Your task to perform on an android device: turn off priority inbox in the gmail app Image 0: 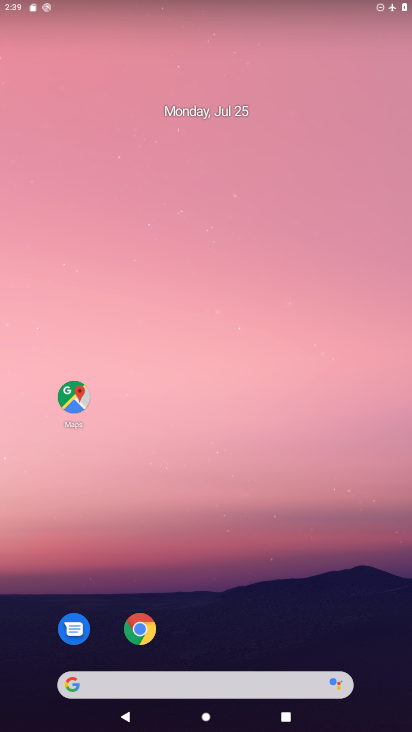
Step 0: drag from (297, 606) to (236, 66)
Your task to perform on an android device: turn off priority inbox in the gmail app Image 1: 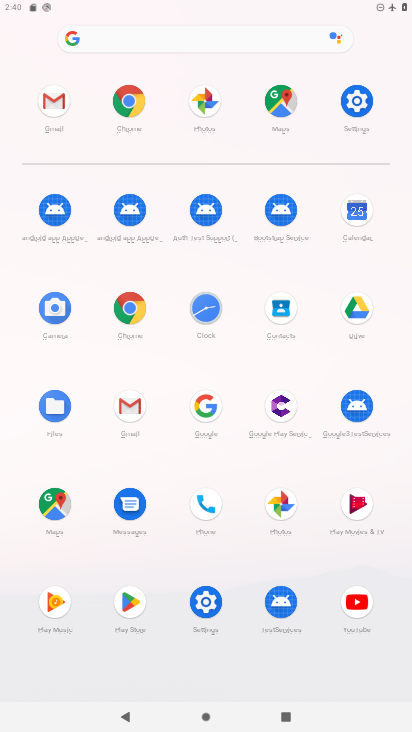
Step 1: click (49, 118)
Your task to perform on an android device: turn off priority inbox in the gmail app Image 2: 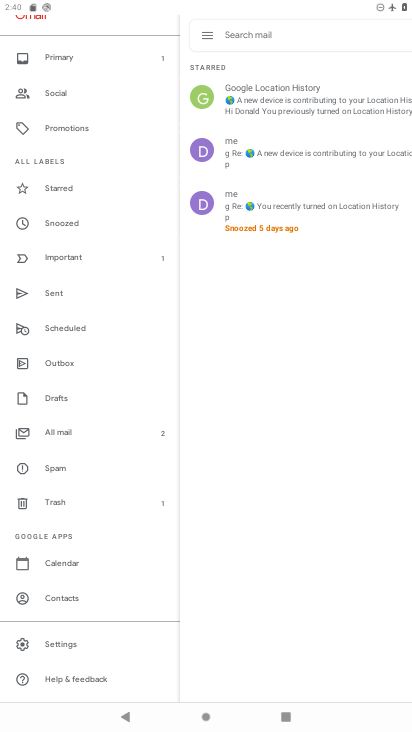
Step 2: click (66, 644)
Your task to perform on an android device: turn off priority inbox in the gmail app Image 3: 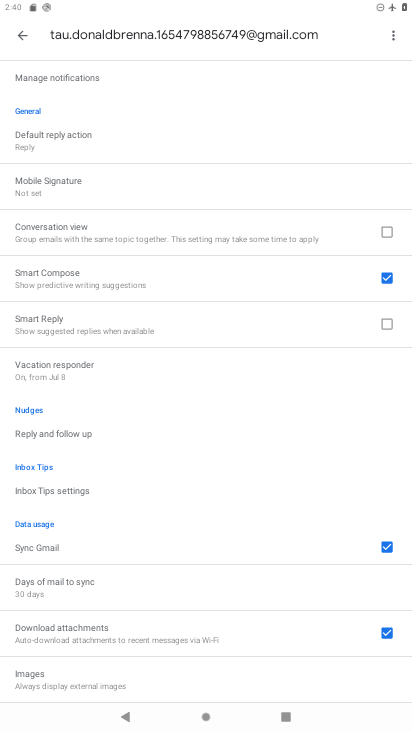
Step 3: drag from (86, 216) to (117, 674)
Your task to perform on an android device: turn off priority inbox in the gmail app Image 4: 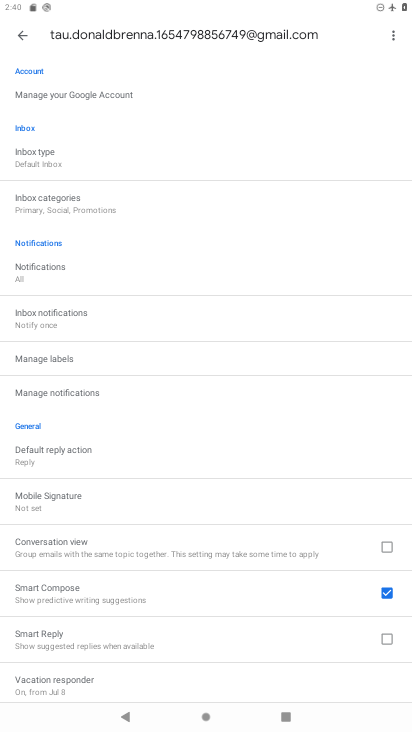
Step 4: click (36, 163)
Your task to perform on an android device: turn off priority inbox in the gmail app Image 5: 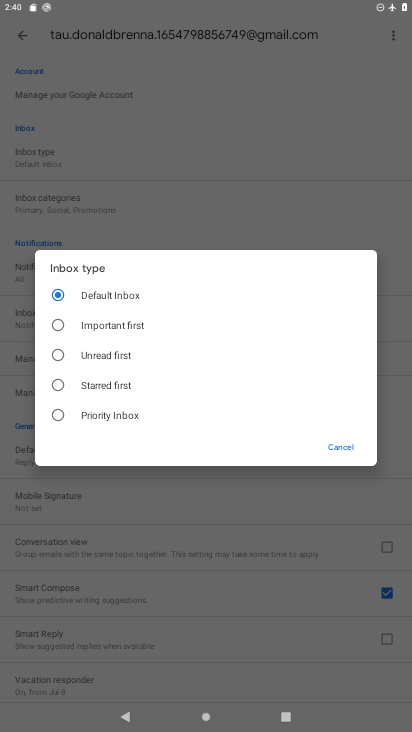
Step 5: task complete